Your task to perform on an android device: turn off notifications settings in the gmail app Image 0: 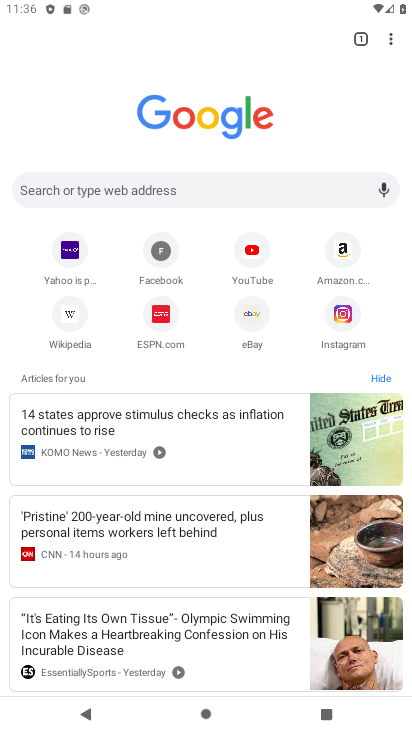
Step 0: press back button
Your task to perform on an android device: turn off notifications settings in the gmail app Image 1: 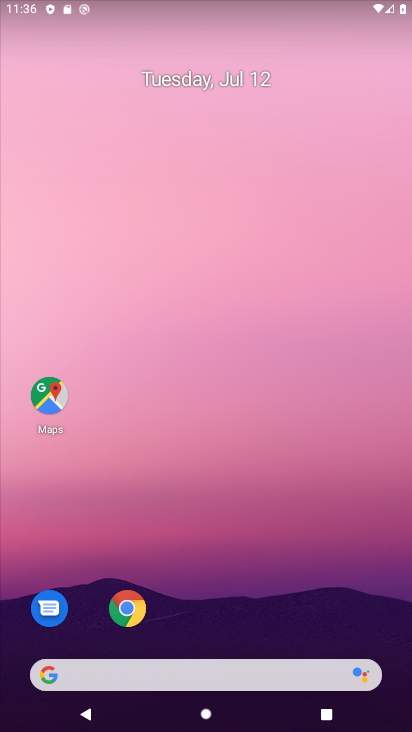
Step 1: drag from (259, 600) to (228, 14)
Your task to perform on an android device: turn off notifications settings in the gmail app Image 2: 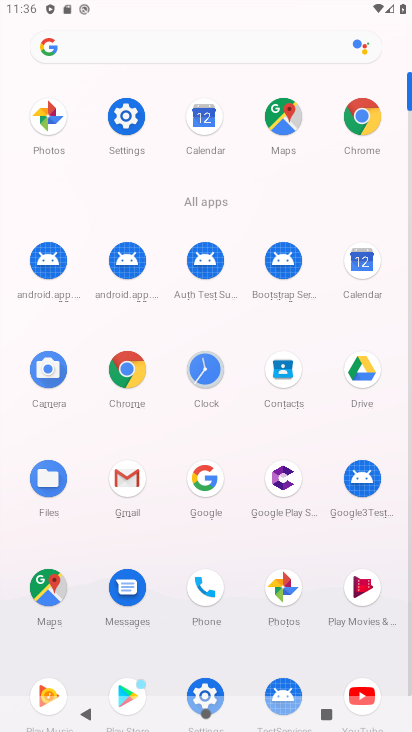
Step 2: click (124, 483)
Your task to perform on an android device: turn off notifications settings in the gmail app Image 3: 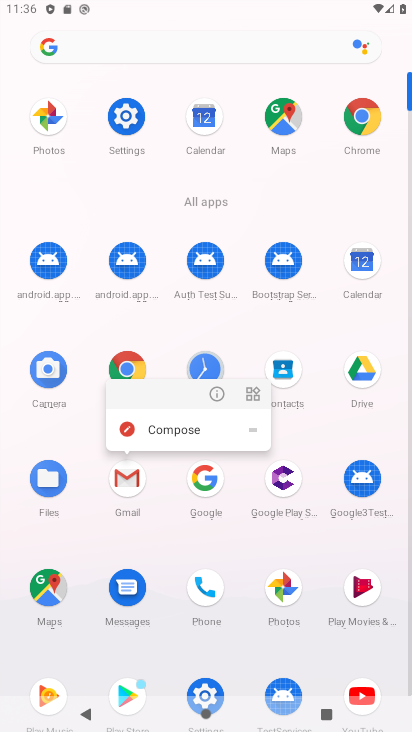
Step 3: click (215, 393)
Your task to perform on an android device: turn off notifications settings in the gmail app Image 4: 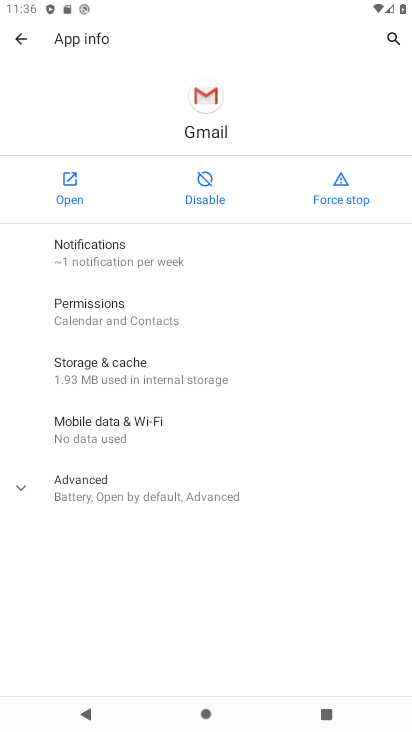
Step 4: click (136, 246)
Your task to perform on an android device: turn off notifications settings in the gmail app Image 5: 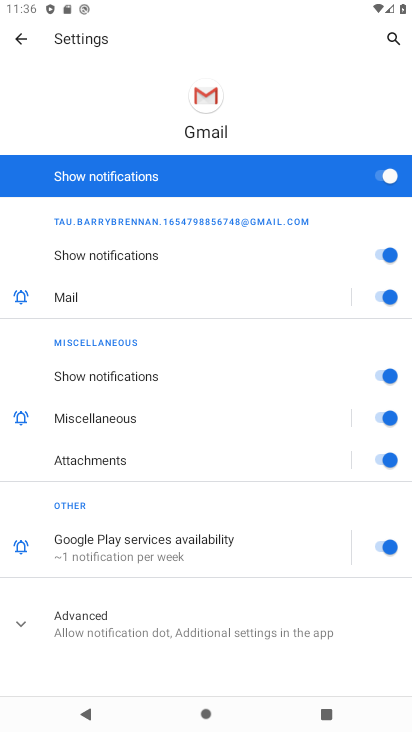
Step 5: click (390, 175)
Your task to perform on an android device: turn off notifications settings in the gmail app Image 6: 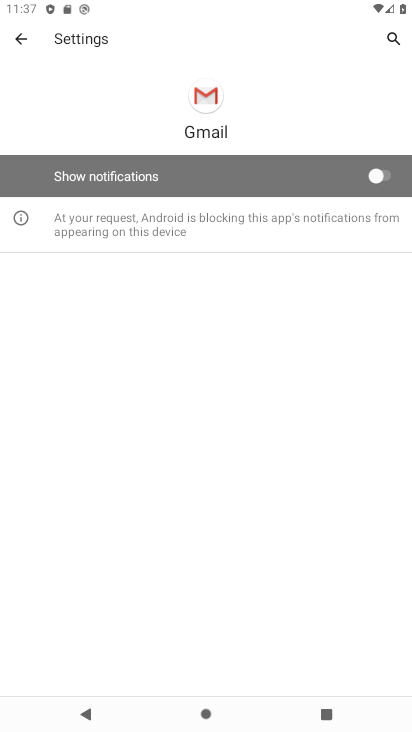
Step 6: task complete